Your task to perform on an android device: turn on notifications settings in the gmail app Image 0: 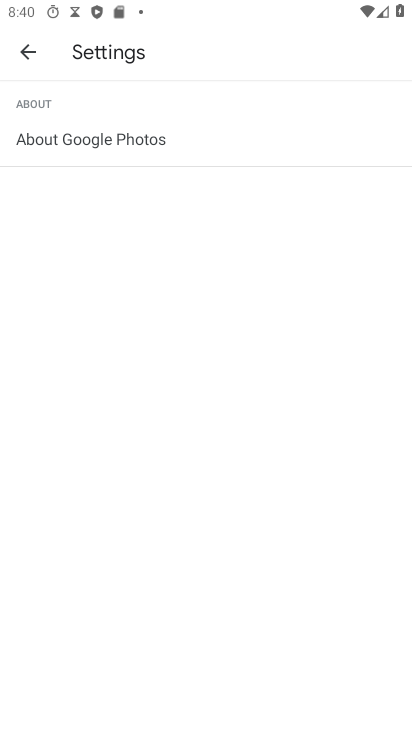
Step 0: press home button
Your task to perform on an android device: turn on notifications settings in the gmail app Image 1: 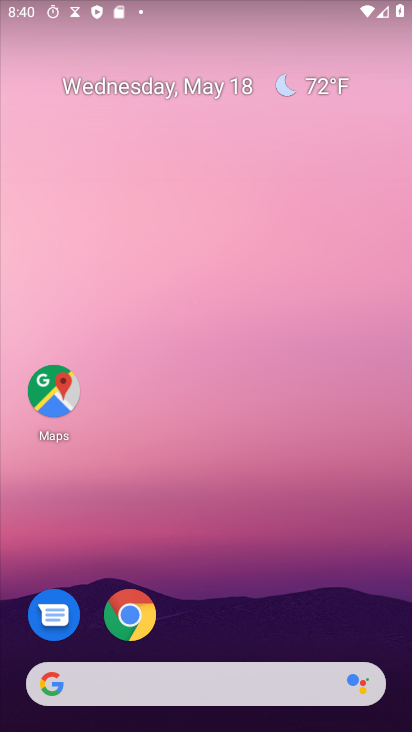
Step 1: drag from (275, 590) to (315, 62)
Your task to perform on an android device: turn on notifications settings in the gmail app Image 2: 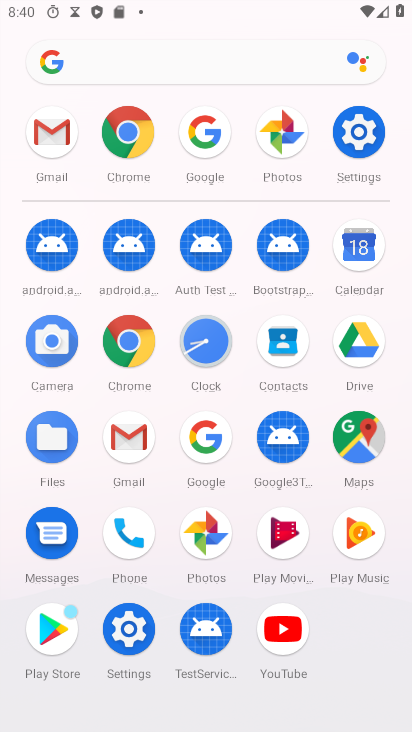
Step 2: click (134, 450)
Your task to perform on an android device: turn on notifications settings in the gmail app Image 3: 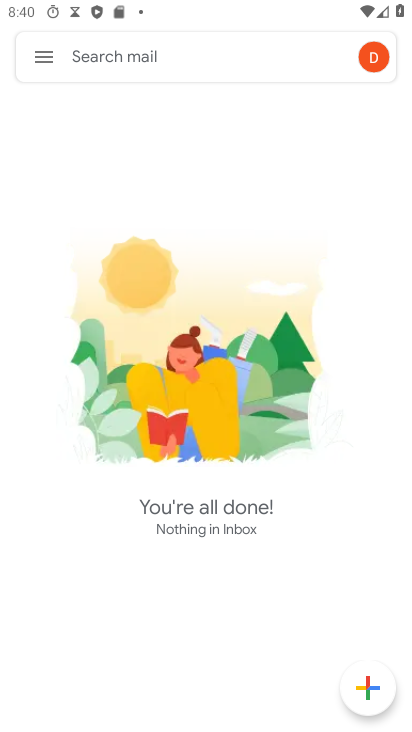
Step 3: click (51, 58)
Your task to perform on an android device: turn on notifications settings in the gmail app Image 4: 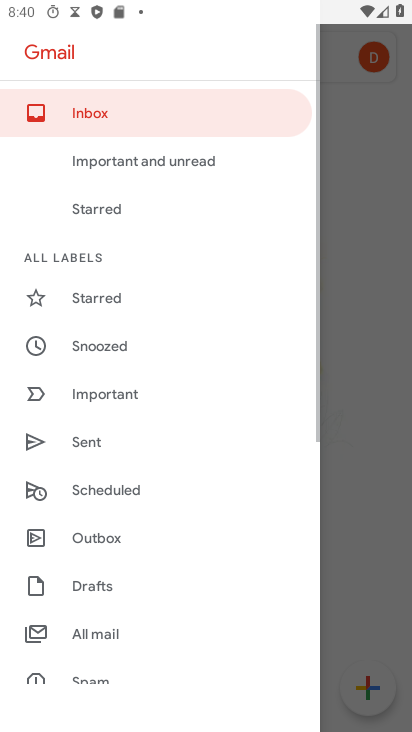
Step 4: drag from (151, 595) to (182, 148)
Your task to perform on an android device: turn on notifications settings in the gmail app Image 5: 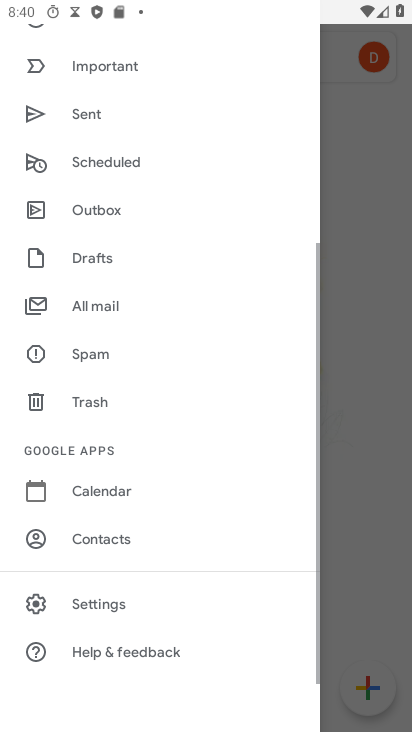
Step 5: click (127, 606)
Your task to perform on an android device: turn on notifications settings in the gmail app Image 6: 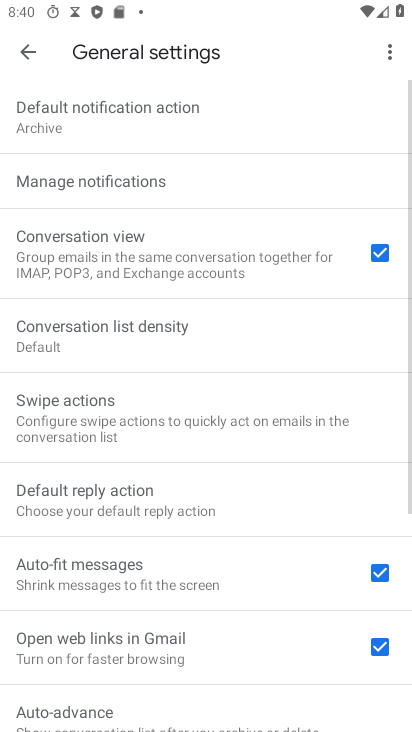
Step 6: click (150, 170)
Your task to perform on an android device: turn on notifications settings in the gmail app Image 7: 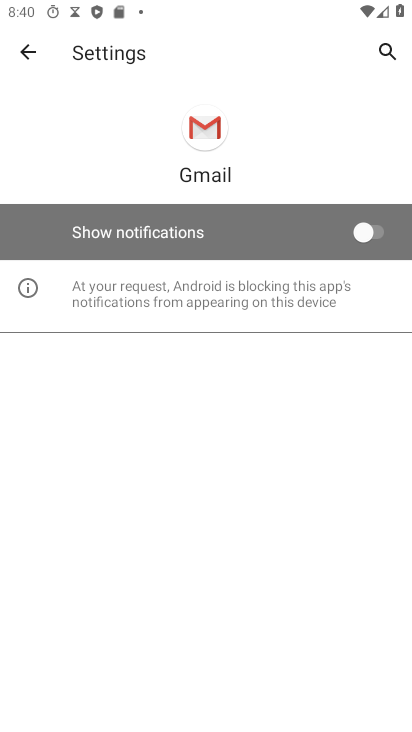
Step 7: click (382, 222)
Your task to perform on an android device: turn on notifications settings in the gmail app Image 8: 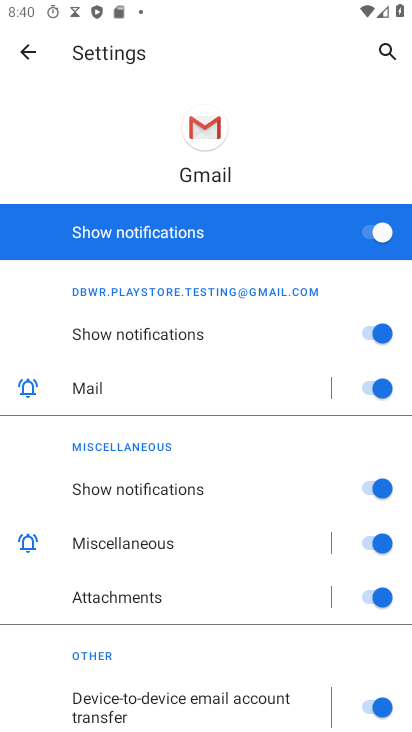
Step 8: task complete